Your task to perform on an android device: check out phone information Image 0: 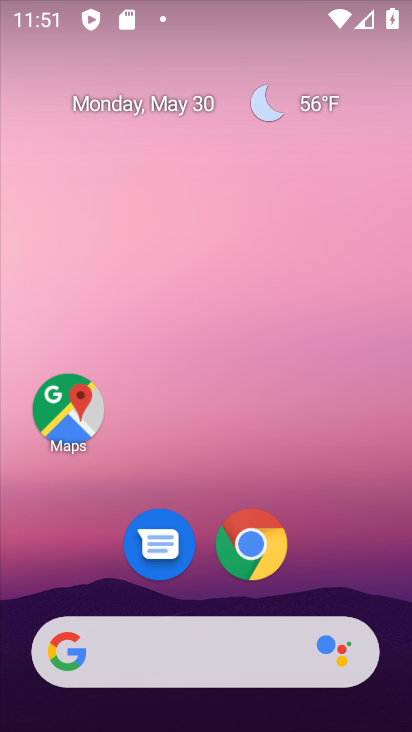
Step 0: drag from (228, 419) to (188, 100)
Your task to perform on an android device: check out phone information Image 1: 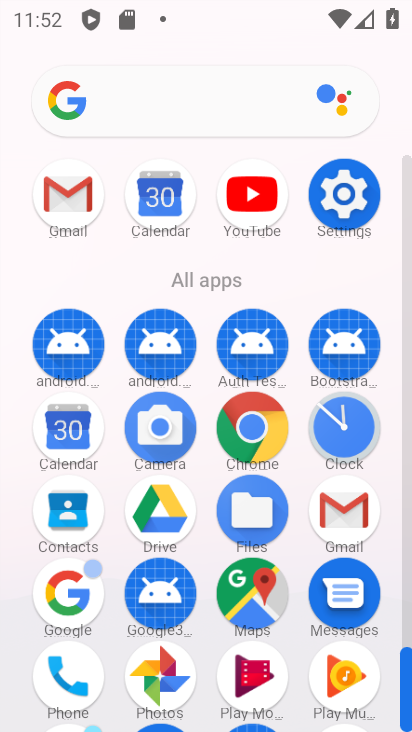
Step 1: click (340, 200)
Your task to perform on an android device: check out phone information Image 2: 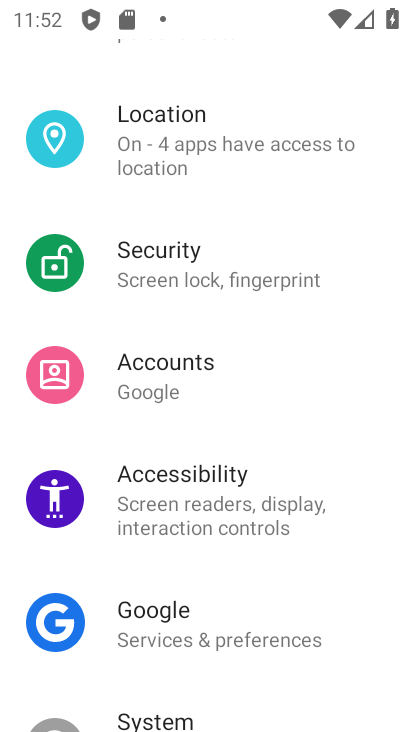
Step 2: drag from (242, 578) to (178, 250)
Your task to perform on an android device: check out phone information Image 3: 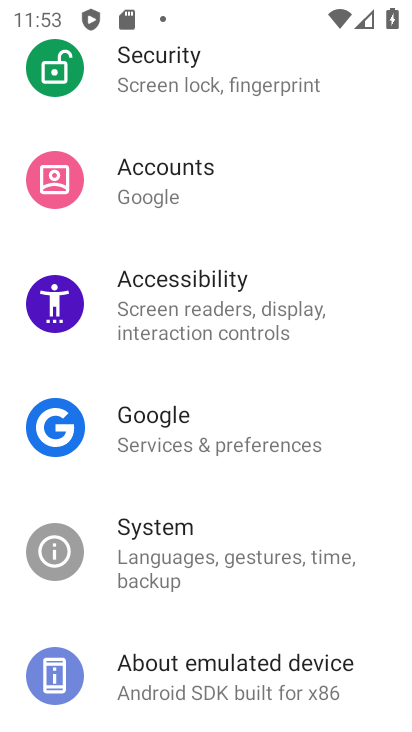
Step 3: drag from (246, 486) to (240, 133)
Your task to perform on an android device: check out phone information Image 4: 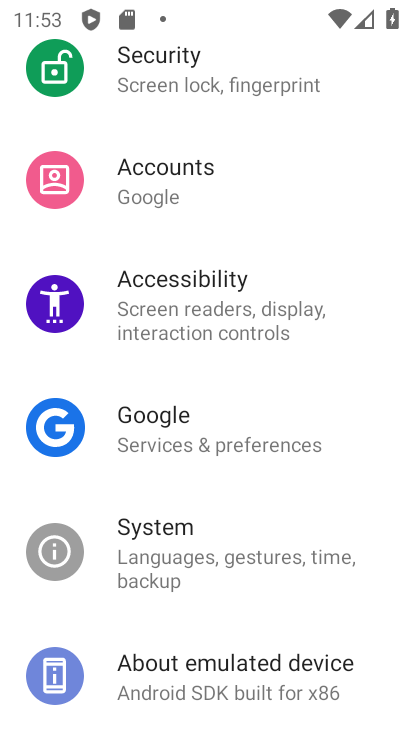
Step 4: click (215, 670)
Your task to perform on an android device: check out phone information Image 5: 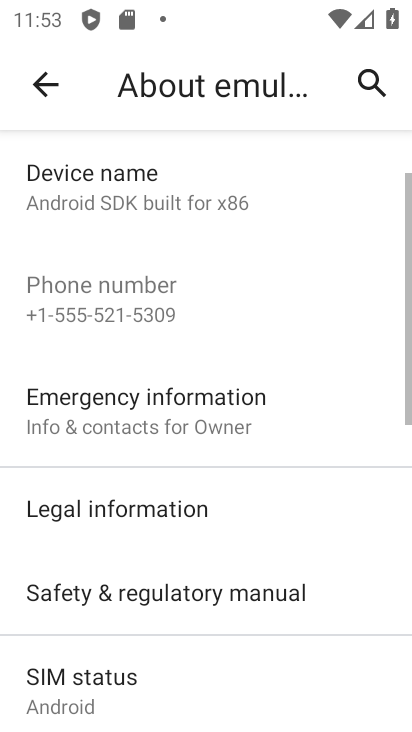
Step 5: task complete